Your task to perform on an android device: toggle airplane mode Image 0: 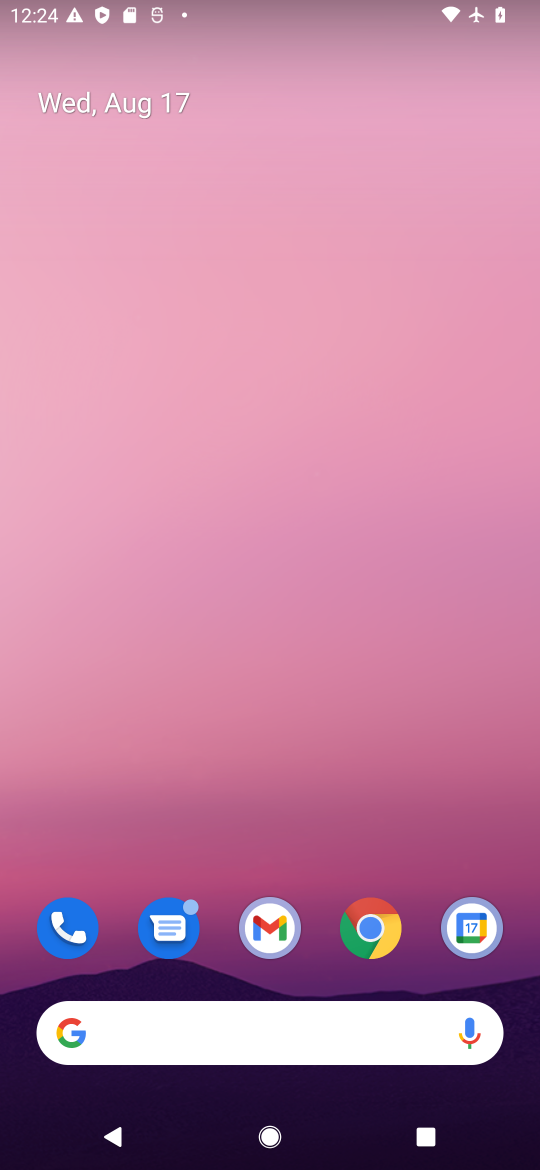
Step 0: drag from (301, 849) to (443, 111)
Your task to perform on an android device: toggle airplane mode Image 1: 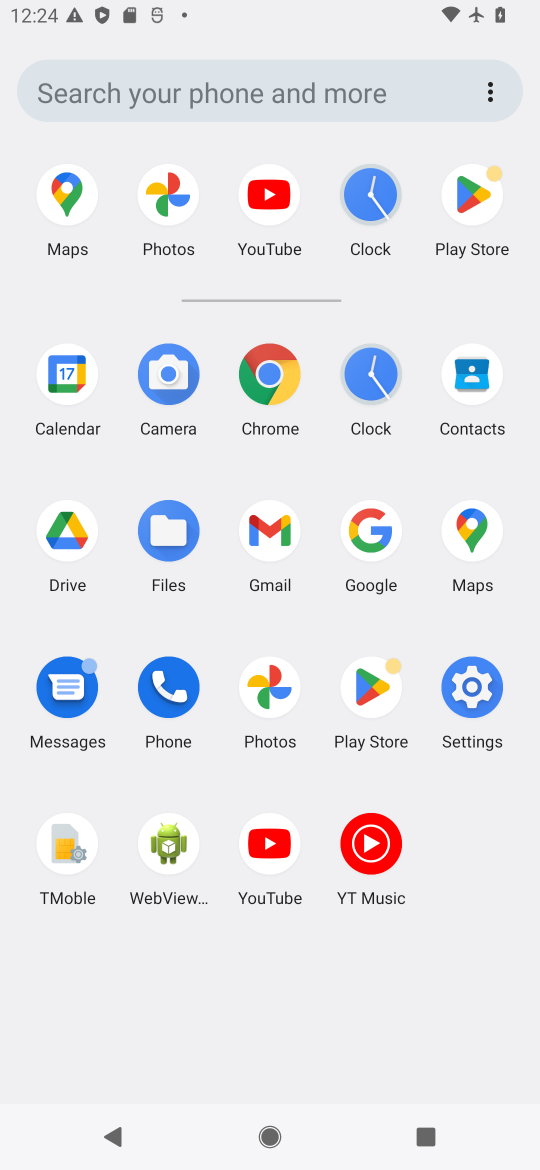
Step 1: click (491, 710)
Your task to perform on an android device: toggle airplane mode Image 2: 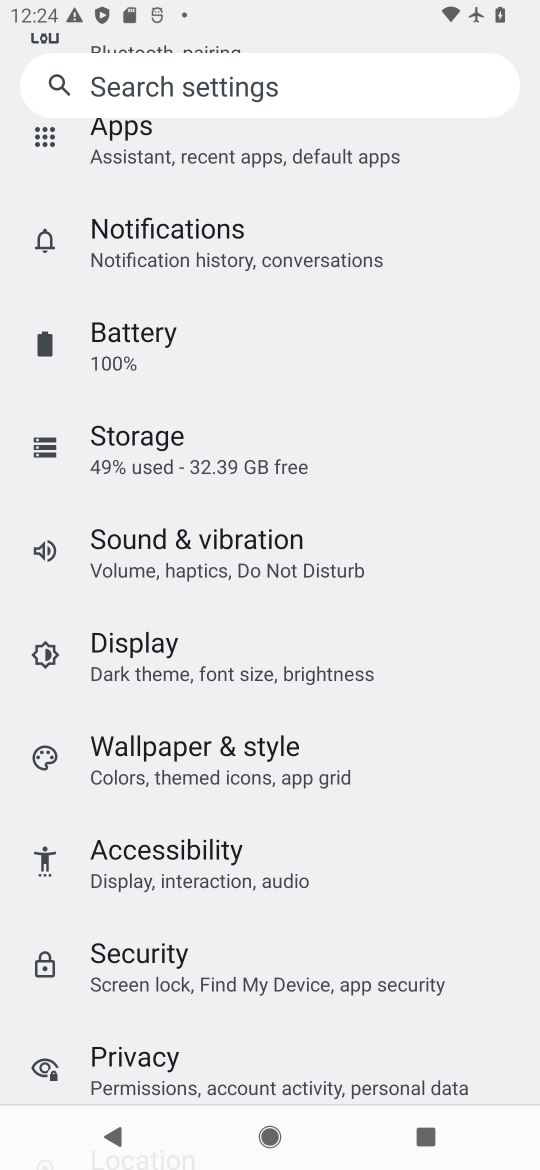
Step 2: drag from (241, 394) to (322, 886)
Your task to perform on an android device: toggle airplane mode Image 3: 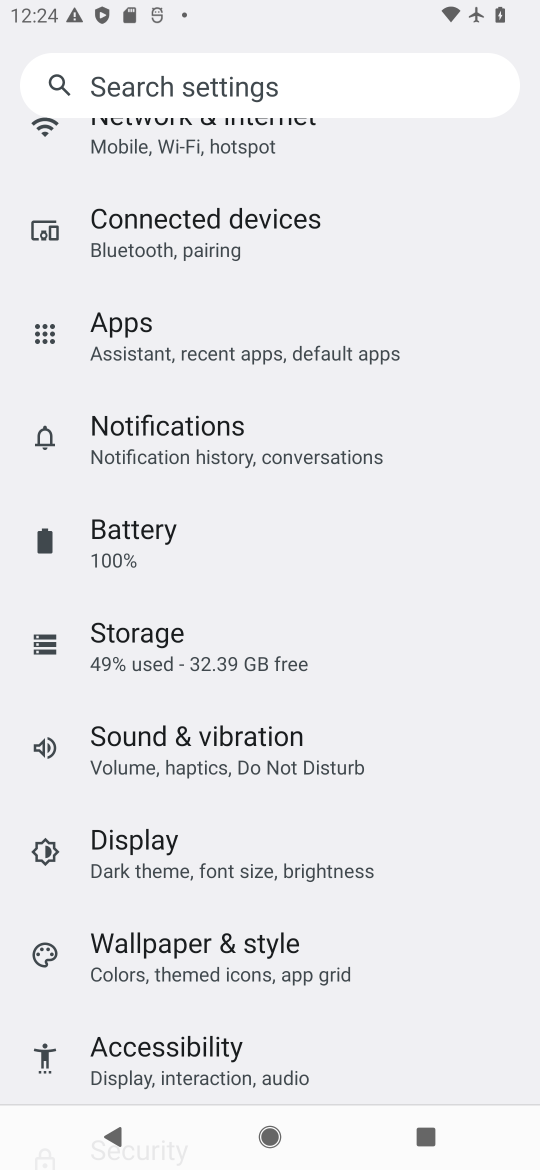
Step 3: drag from (290, 451) to (358, 1017)
Your task to perform on an android device: toggle airplane mode Image 4: 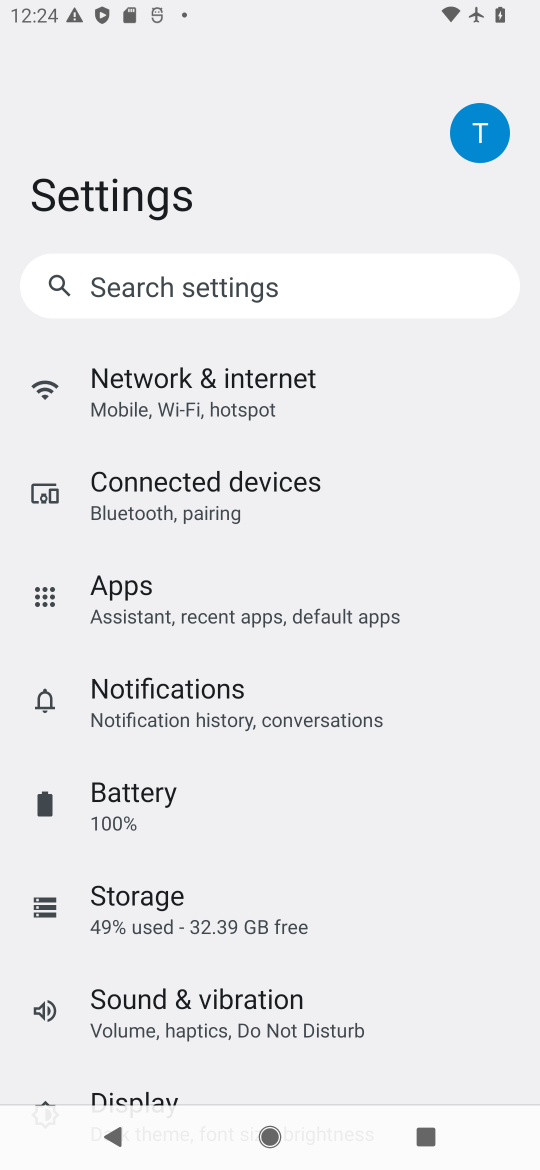
Step 4: click (242, 402)
Your task to perform on an android device: toggle airplane mode Image 5: 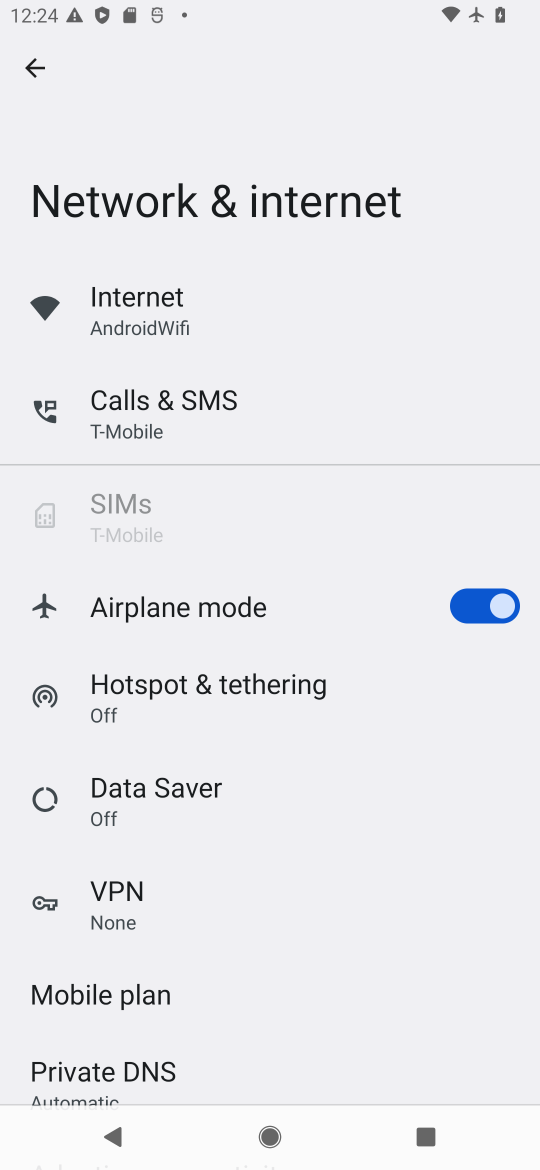
Step 5: click (457, 614)
Your task to perform on an android device: toggle airplane mode Image 6: 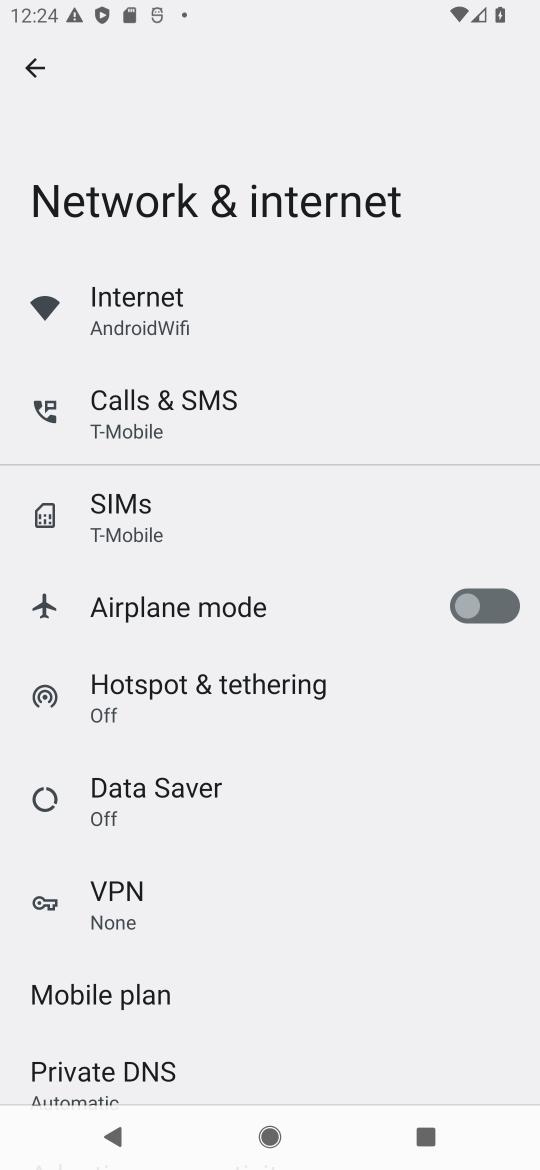
Step 6: task complete